Your task to perform on an android device: Open CNN.com Image 0: 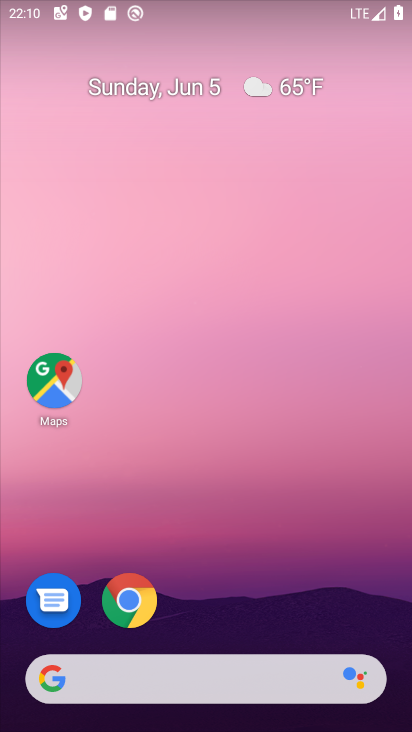
Step 0: click (123, 601)
Your task to perform on an android device: Open CNN.com Image 1: 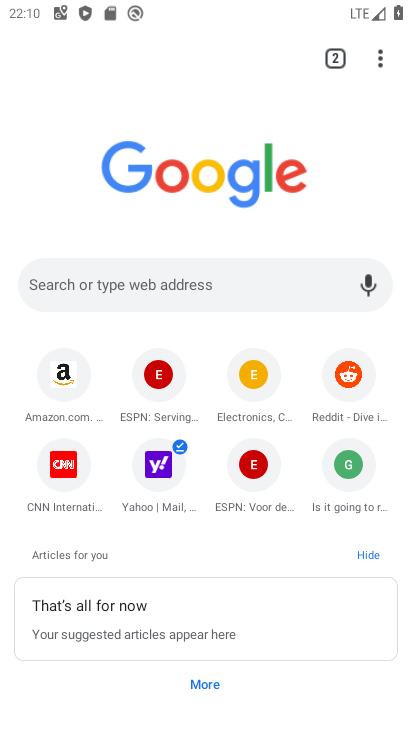
Step 1: click (70, 468)
Your task to perform on an android device: Open CNN.com Image 2: 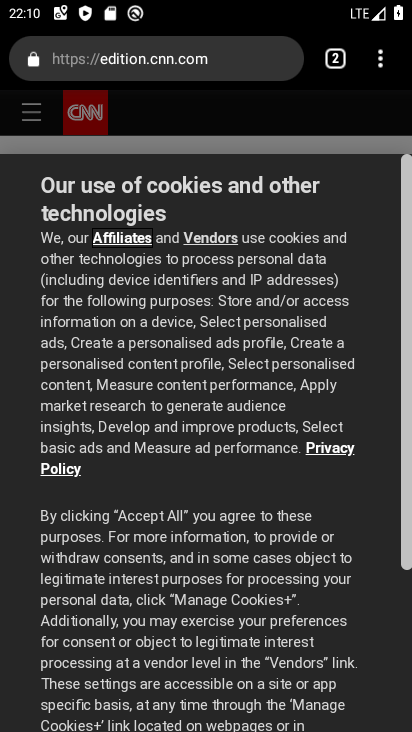
Step 2: task complete